Your task to perform on an android device: add a label to a message in the gmail app Image 0: 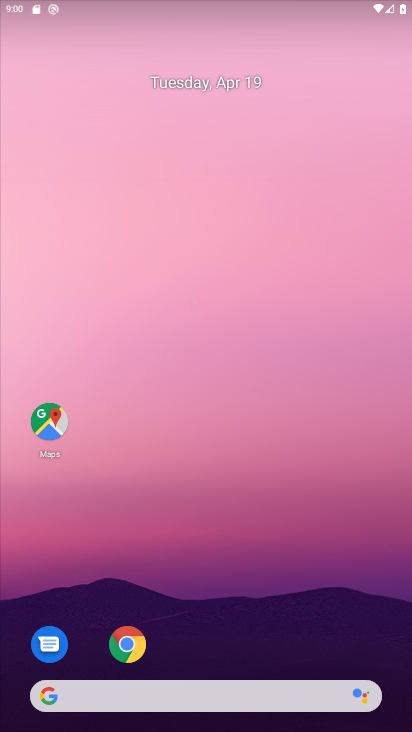
Step 0: drag from (253, 634) to (264, 268)
Your task to perform on an android device: add a label to a message in the gmail app Image 1: 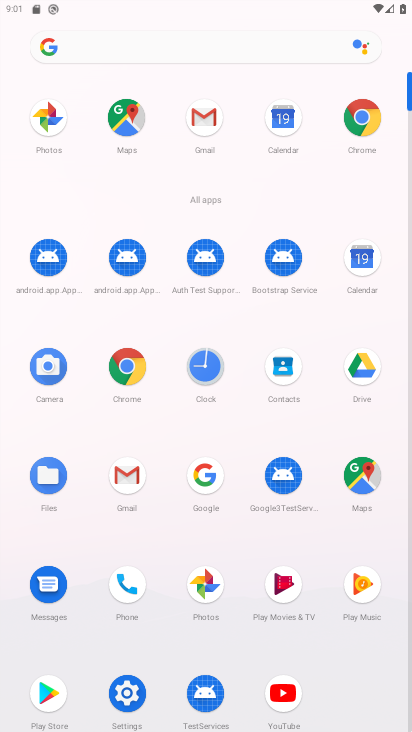
Step 1: click (130, 476)
Your task to perform on an android device: add a label to a message in the gmail app Image 2: 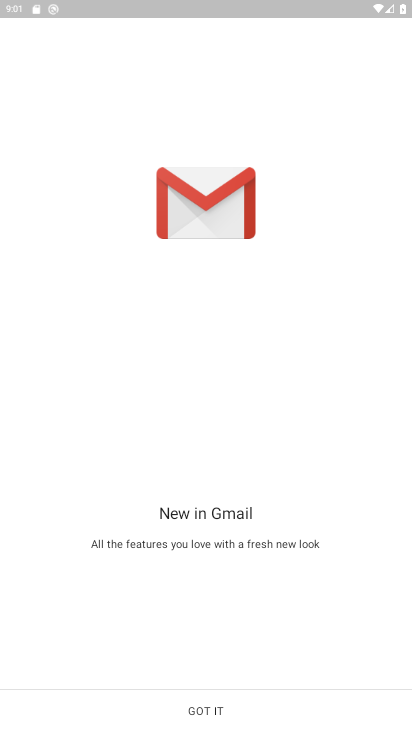
Step 2: click (265, 714)
Your task to perform on an android device: add a label to a message in the gmail app Image 3: 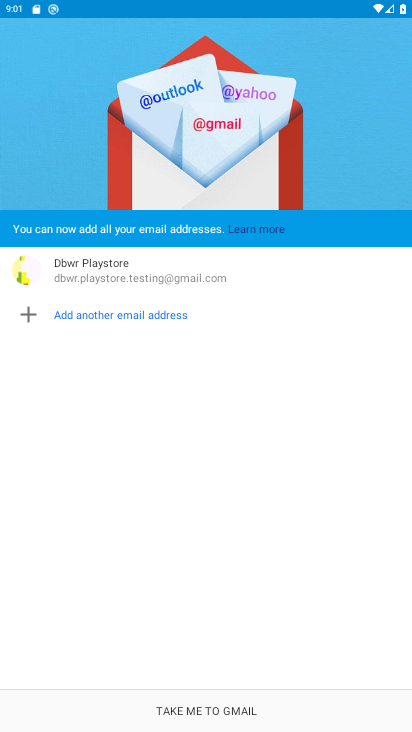
Step 3: click (265, 714)
Your task to perform on an android device: add a label to a message in the gmail app Image 4: 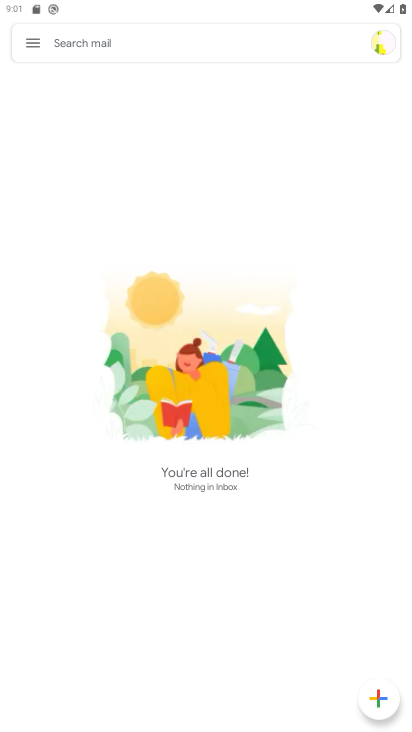
Step 4: task complete